Your task to perform on an android device: Open Maps and search for coffee Image 0: 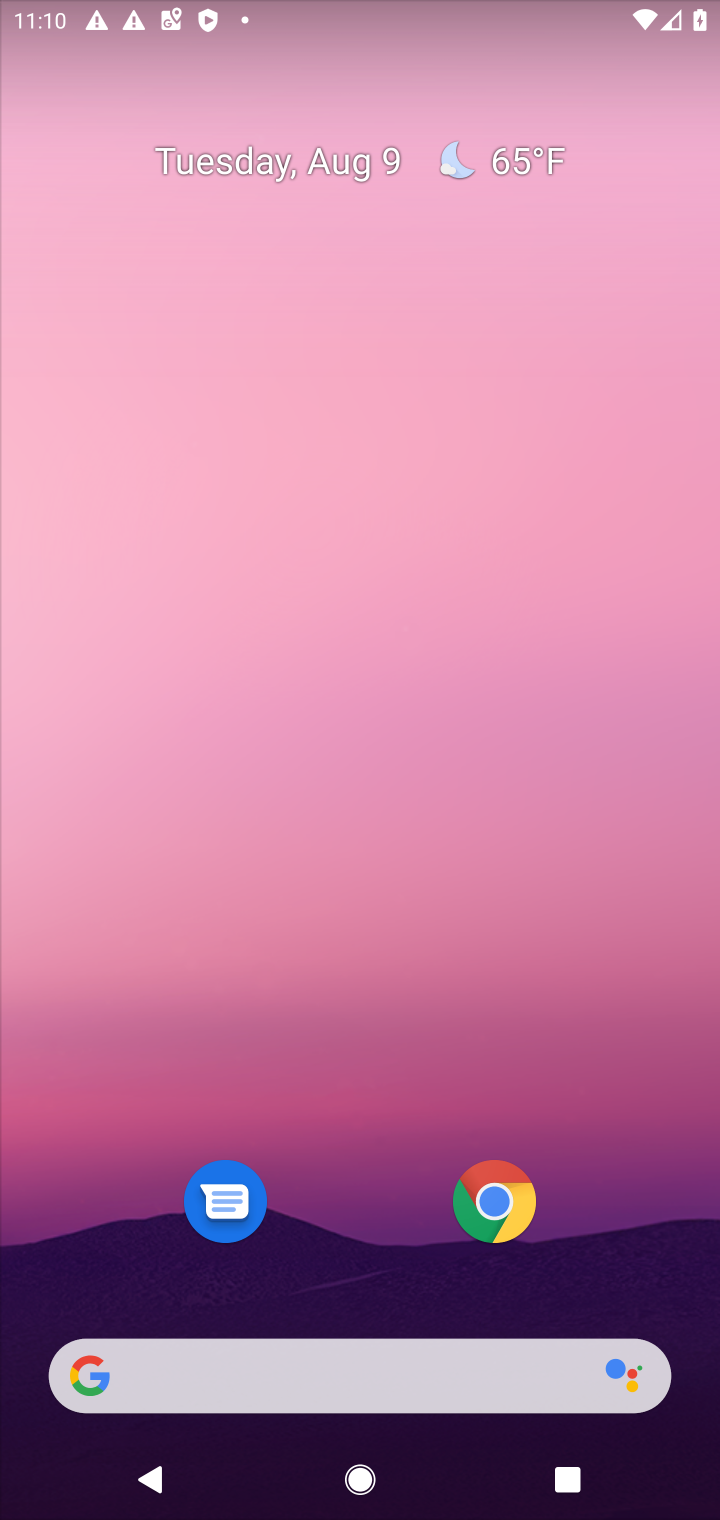
Step 0: press home button
Your task to perform on an android device: Open Maps and search for coffee Image 1: 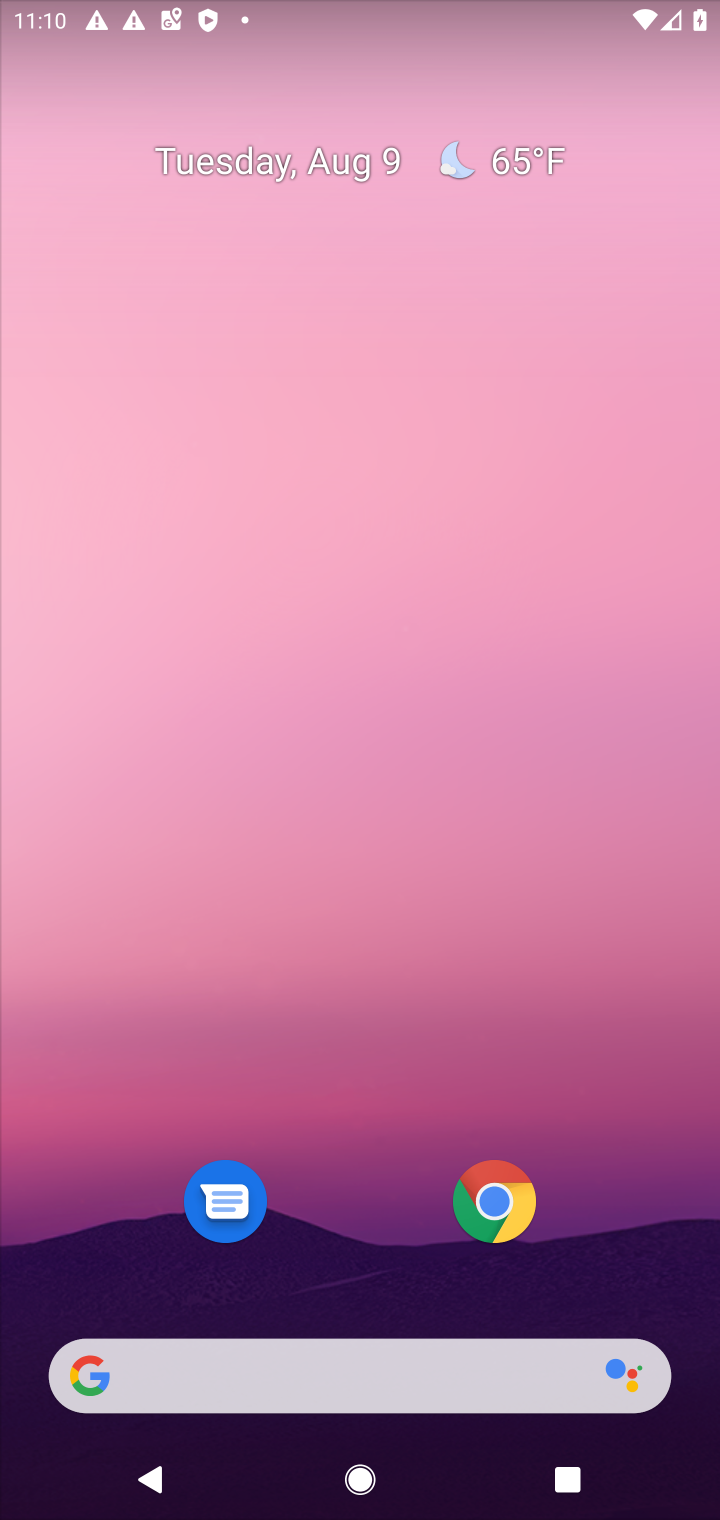
Step 1: drag from (351, 1212) to (660, 5)
Your task to perform on an android device: Open Maps and search for coffee Image 2: 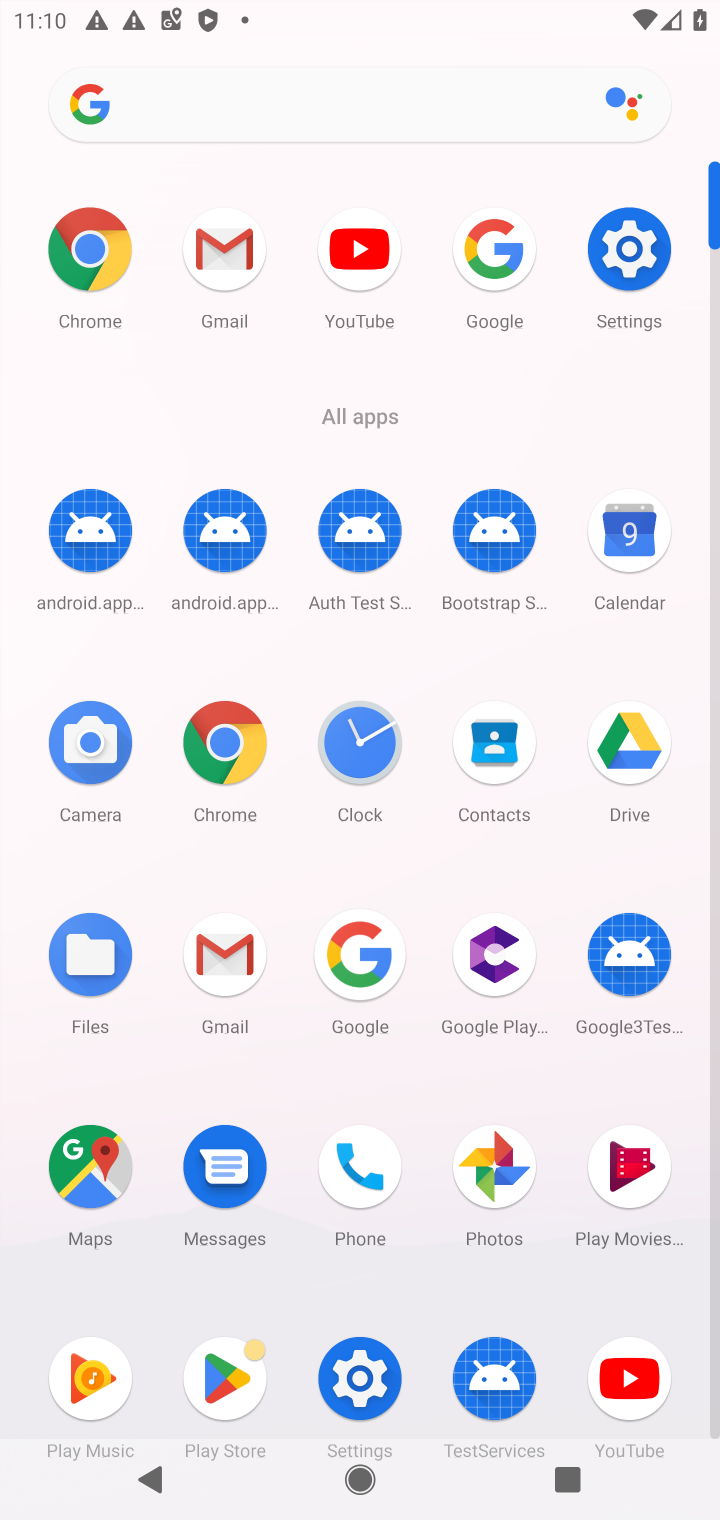
Step 2: click (106, 1180)
Your task to perform on an android device: Open Maps and search for coffee Image 3: 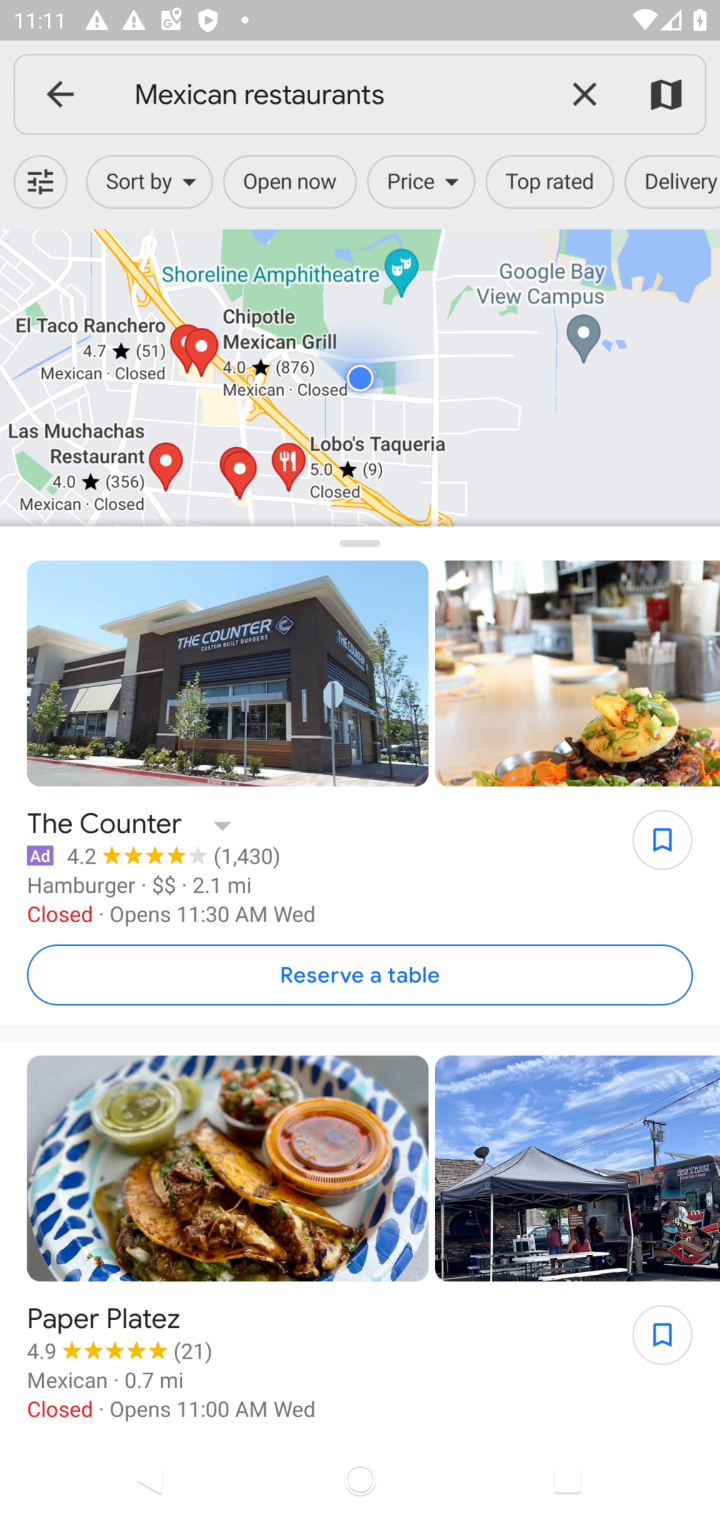
Step 3: click (49, 80)
Your task to perform on an android device: Open Maps and search for coffee Image 4: 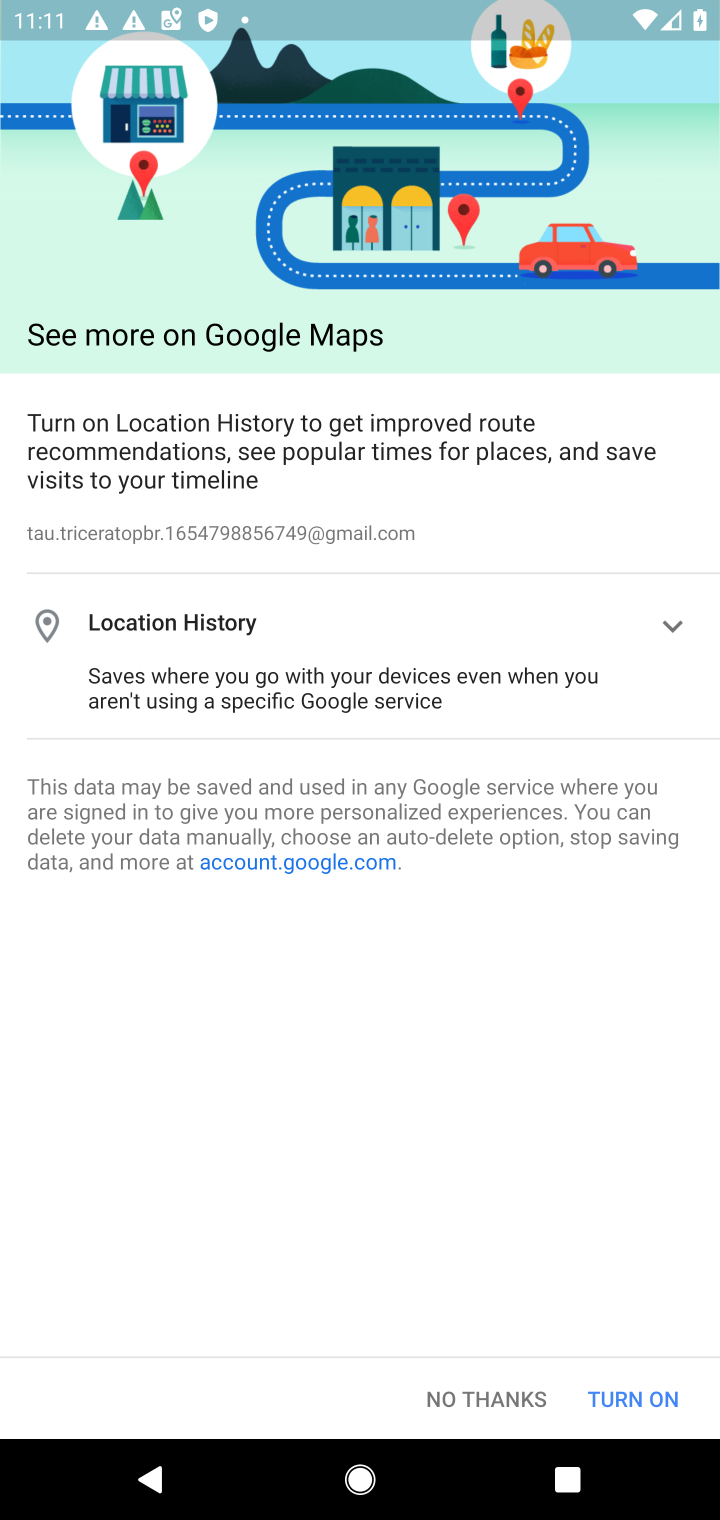
Step 4: press back button
Your task to perform on an android device: Open Maps and search for coffee Image 5: 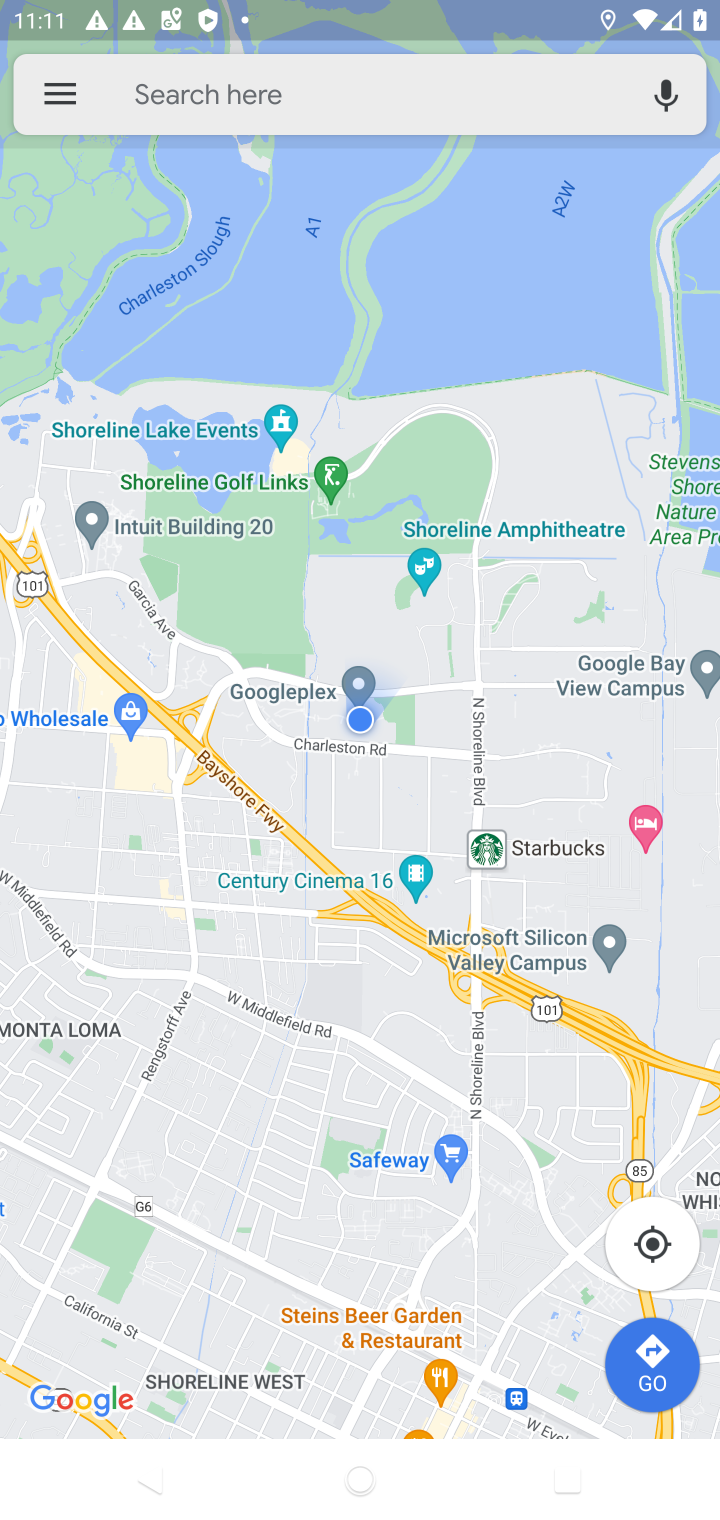
Step 5: click (378, 84)
Your task to perform on an android device: Open Maps and search for coffee Image 6: 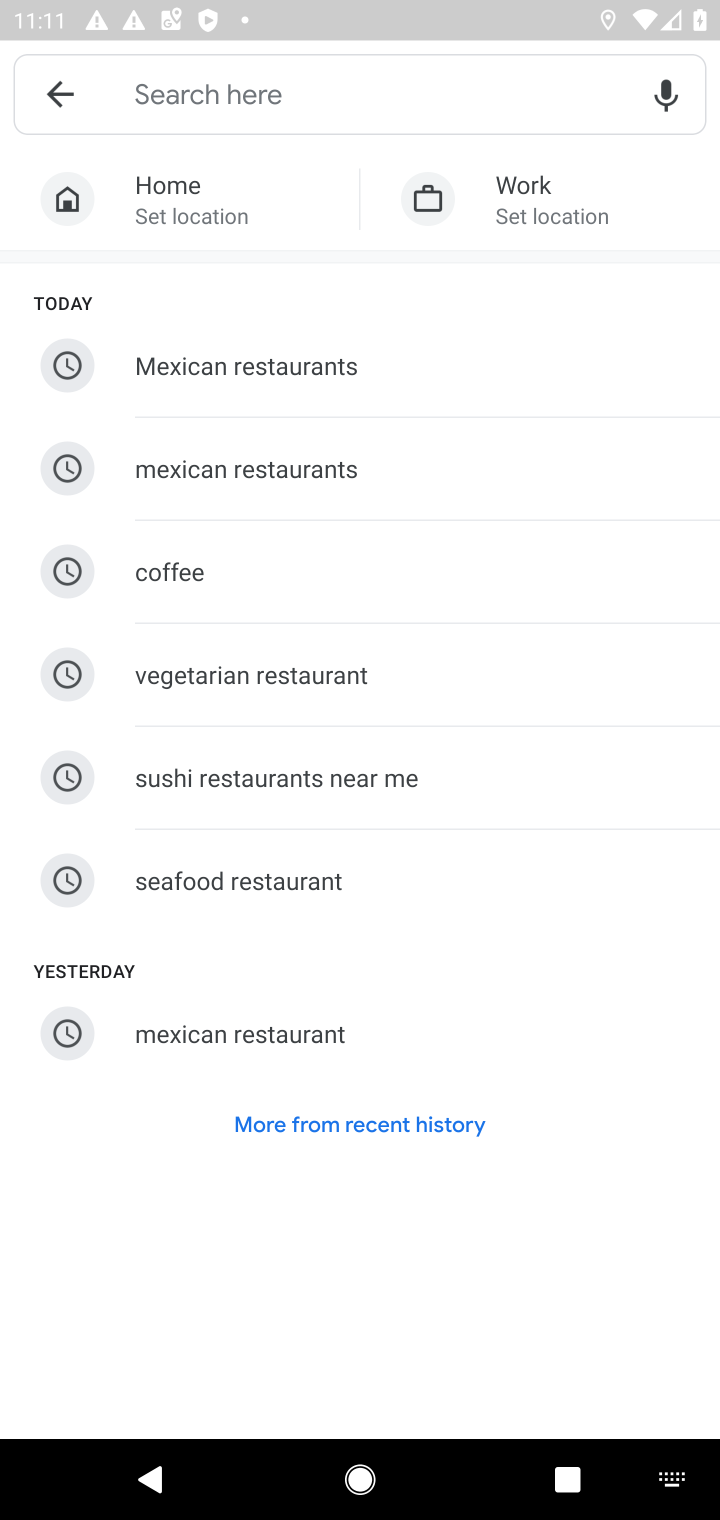
Step 6: click (163, 581)
Your task to perform on an android device: Open Maps and search for coffee Image 7: 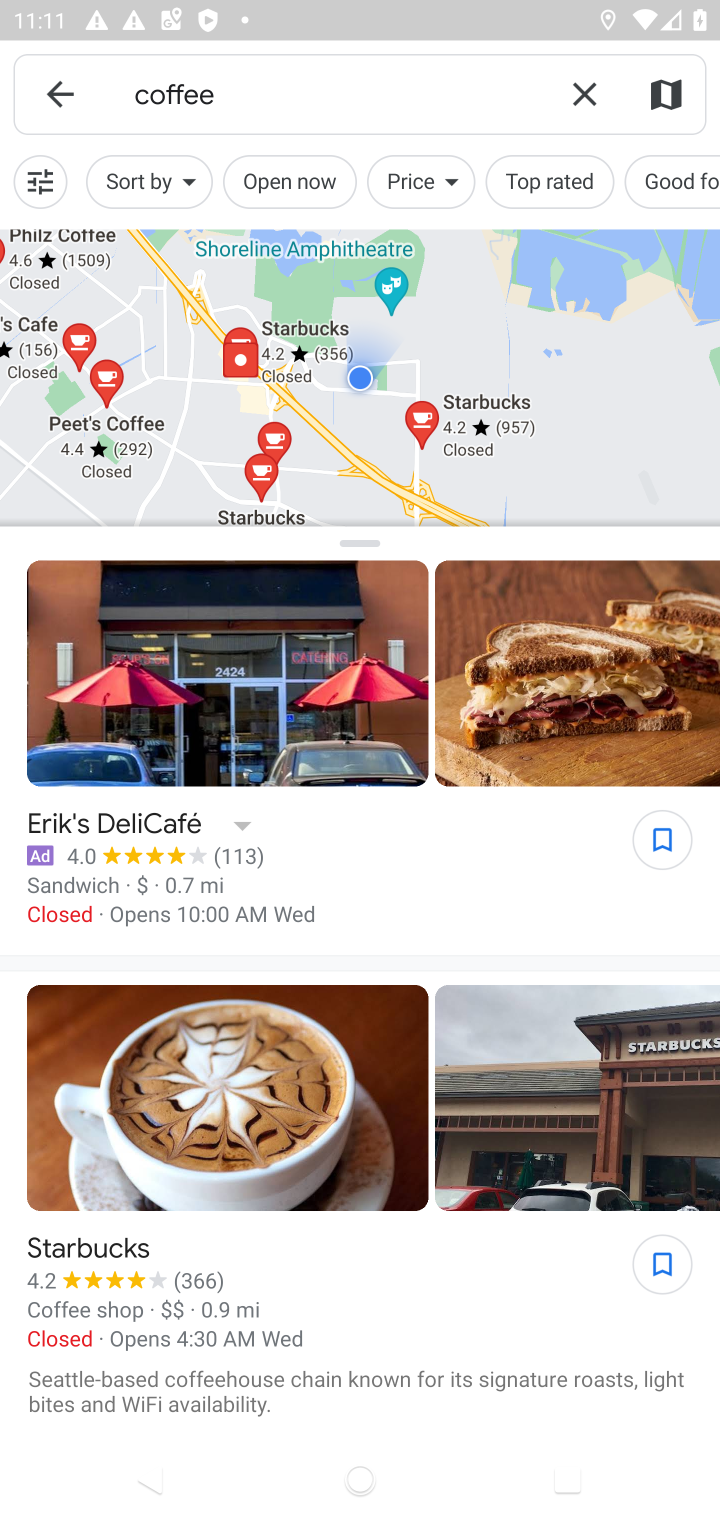
Step 7: task complete